Your task to perform on an android device: Play the last video I watched on Youtube Image 0: 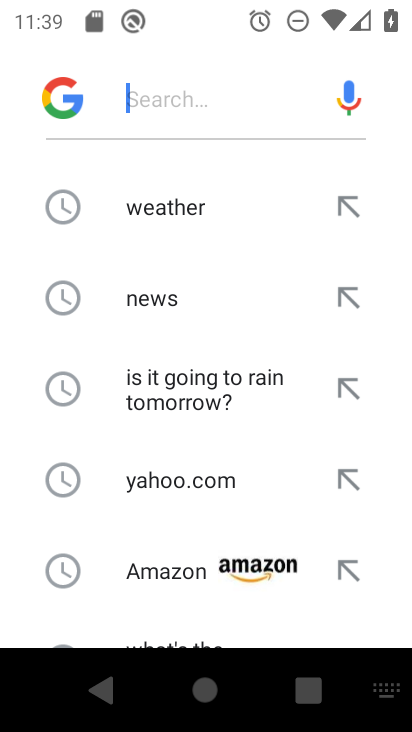
Step 0: press home button
Your task to perform on an android device: Play the last video I watched on Youtube Image 1: 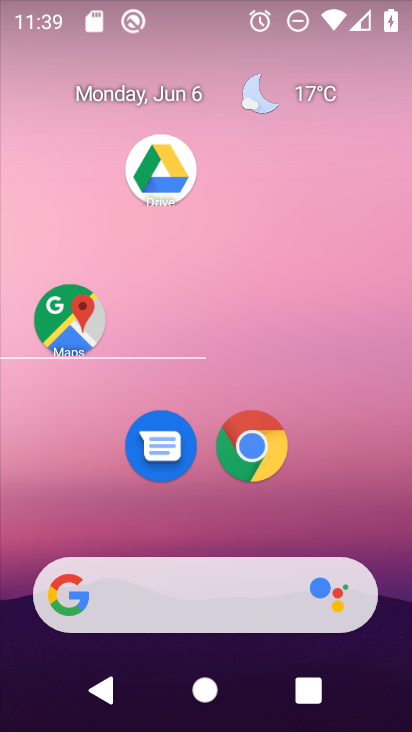
Step 1: drag from (190, 522) to (210, 146)
Your task to perform on an android device: Play the last video I watched on Youtube Image 2: 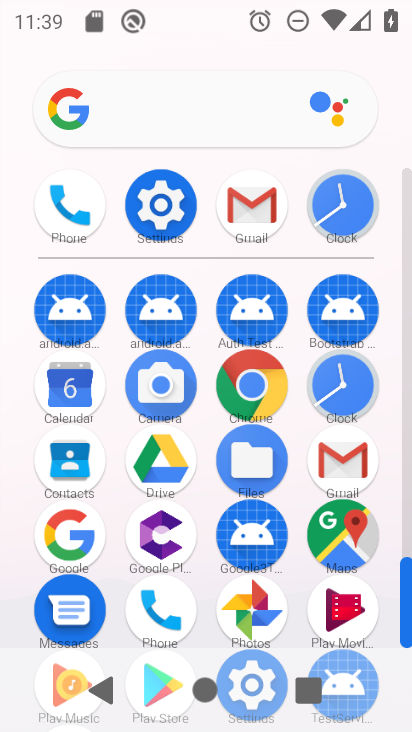
Step 2: drag from (182, 576) to (224, 171)
Your task to perform on an android device: Play the last video I watched on Youtube Image 3: 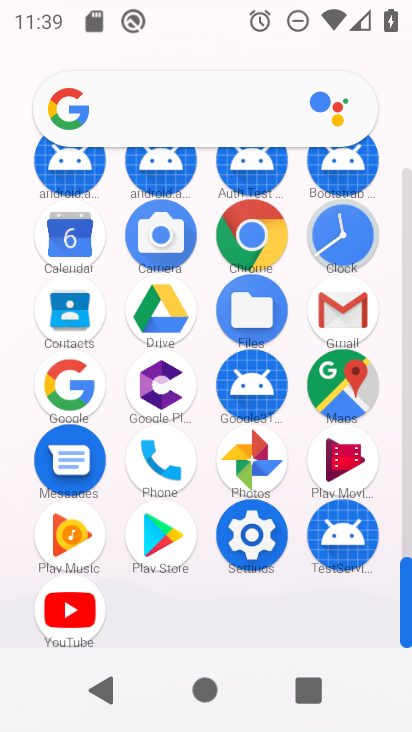
Step 3: click (67, 618)
Your task to perform on an android device: Play the last video I watched on Youtube Image 4: 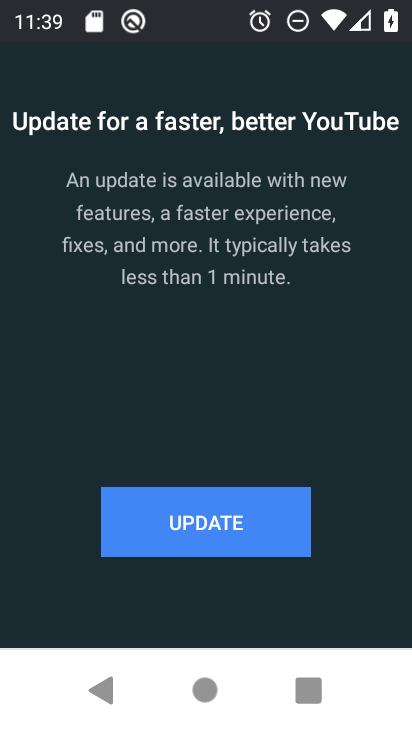
Step 4: click (196, 515)
Your task to perform on an android device: Play the last video I watched on Youtube Image 5: 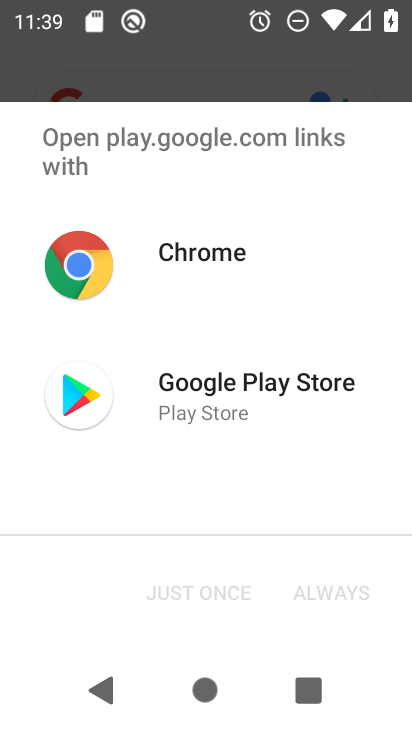
Step 5: click (146, 387)
Your task to perform on an android device: Play the last video I watched on Youtube Image 6: 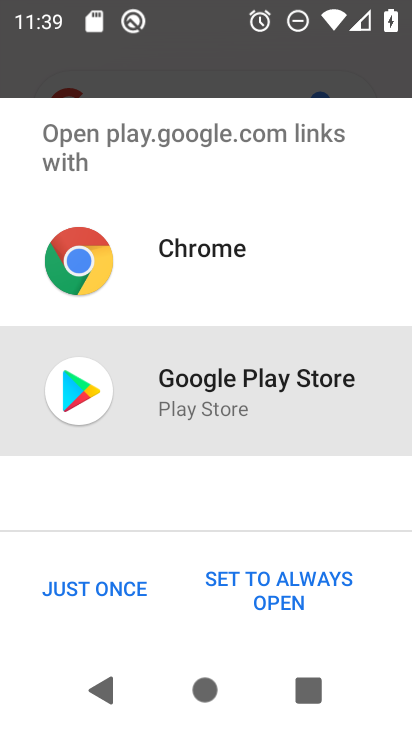
Step 6: click (131, 594)
Your task to perform on an android device: Play the last video I watched on Youtube Image 7: 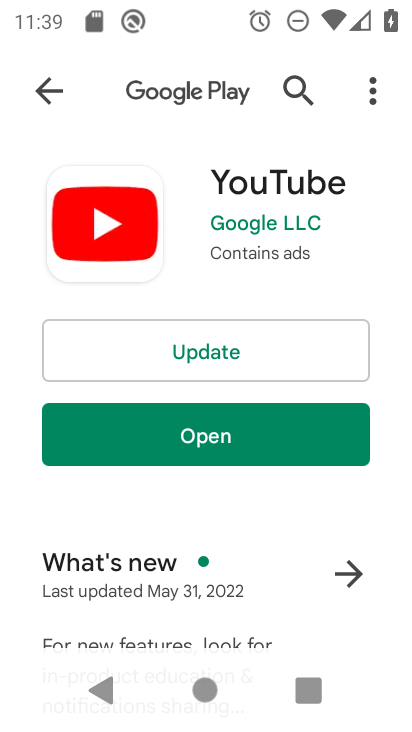
Step 7: click (164, 332)
Your task to perform on an android device: Play the last video I watched on Youtube Image 8: 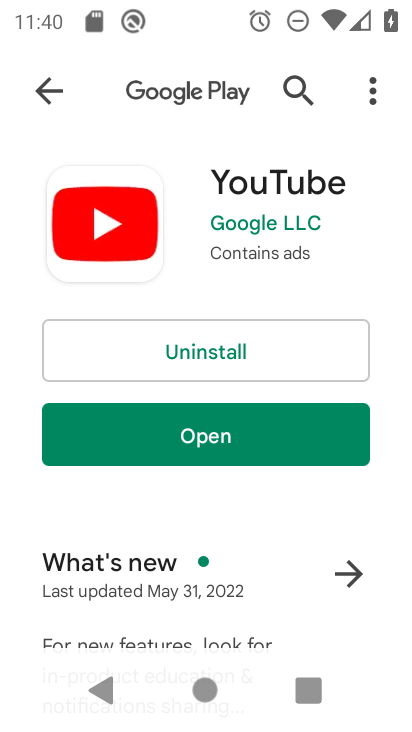
Step 8: click (217, 440)
Your task to perform on an android device: Play the last video I watched on Youtube Image 9: 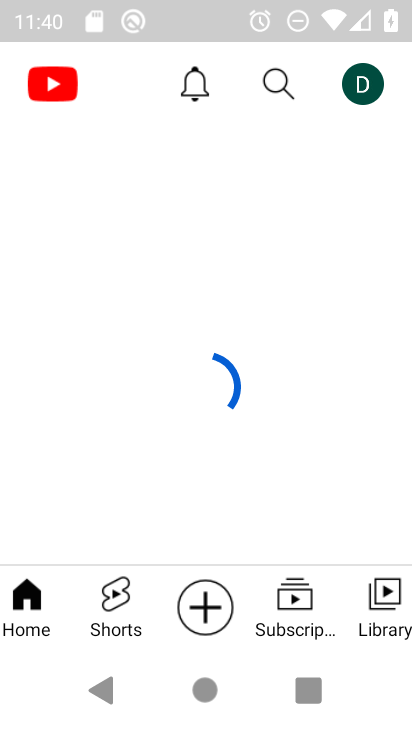
Step 9: click (355, 613)
Your task to perform on an android device: Play the last video I watched on Youtube Image 10: 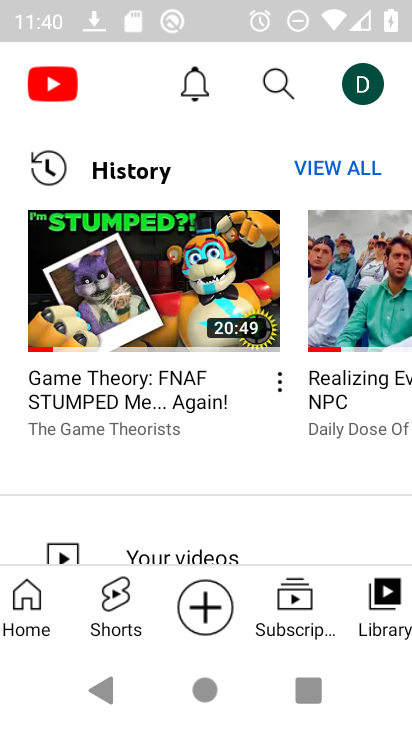
Step 10: click (78, 276)
Your task to perform on an android device: Play the last video I watched on Youtube Image 11: 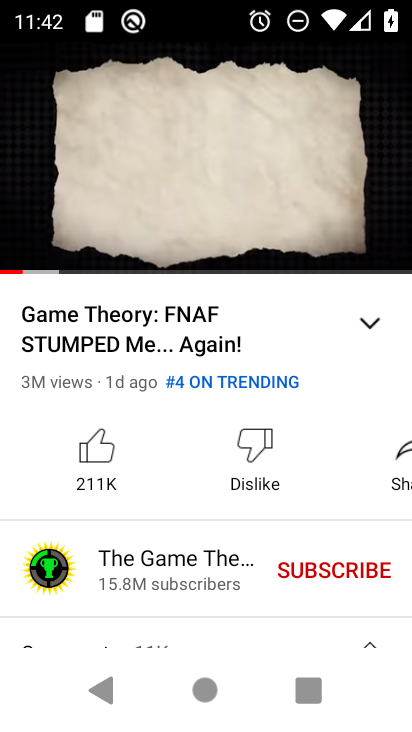
Step 11: task complete